Your task to perform on an android device: delete browsing data in the chrome app Image 0: 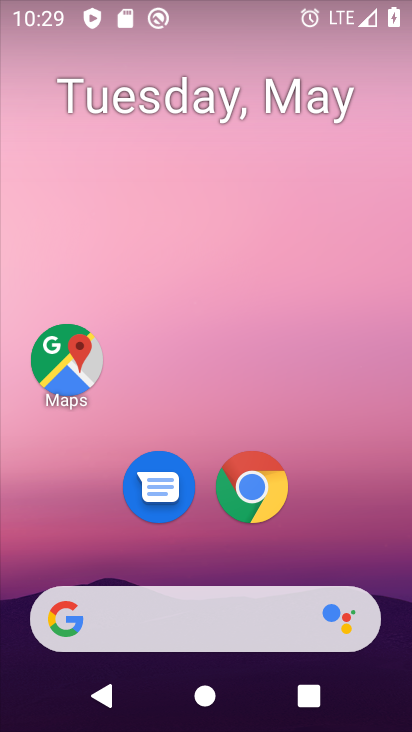
Step 0: drag from (162, 570) to (215, 112)
Your task to perform on an android device: delete browsing data in the chrome app Image 1: 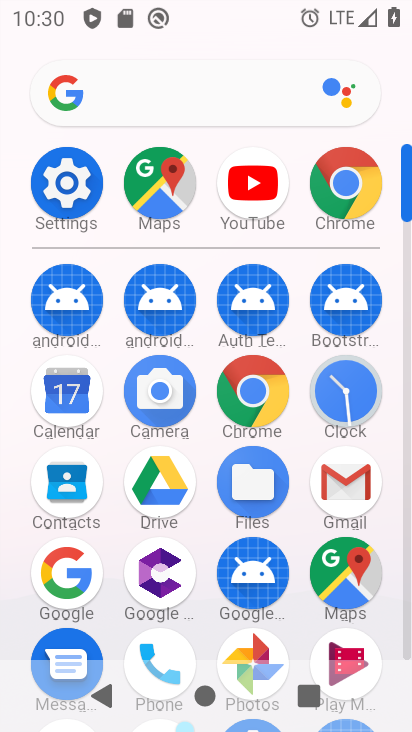
Step 1: click (247, 406)
Your task to perform on an android device: delete browsing data in the chrome app Image 2: 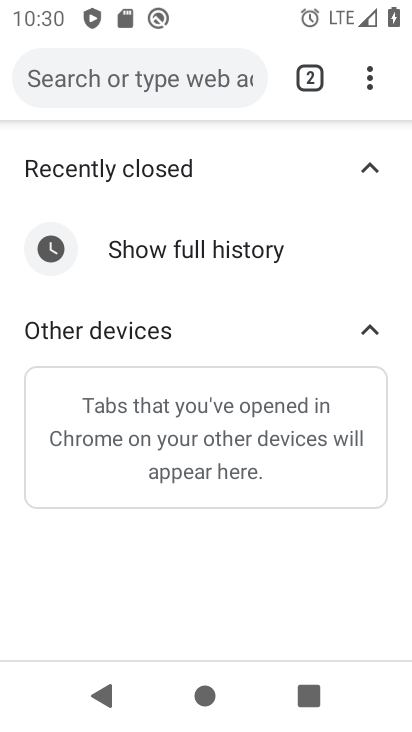
Step 2: click (365, 92)
Your task to perform on an android device: delete browsing data in the chrome app Image 3: 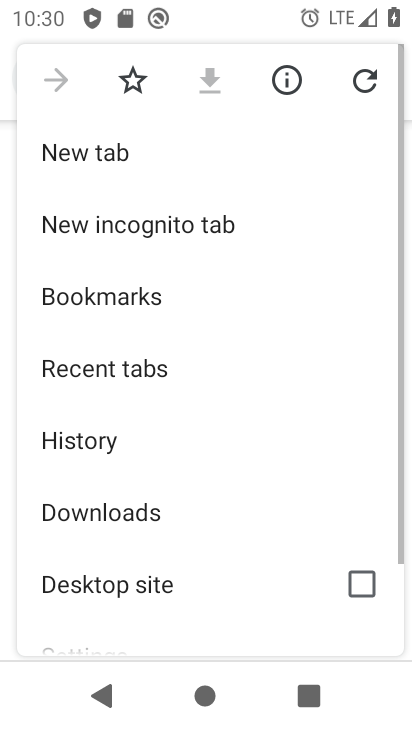
Step 3: drag from (156, 545) to (237, 110)
Your task to perform on an android device: delete browsing data in the chrome app Image 4: 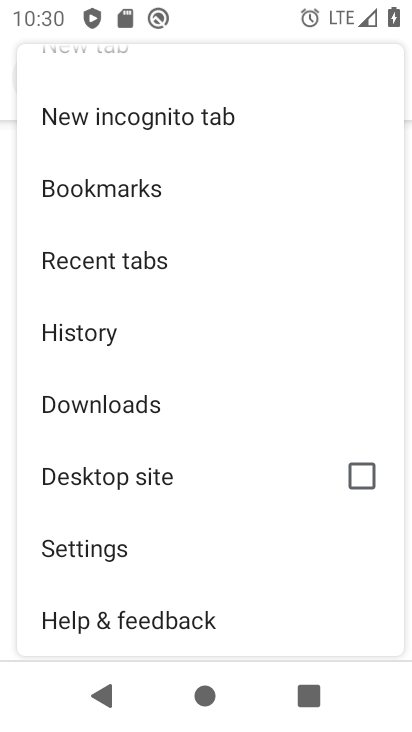
Step 4: click (123, 545)
Your task to perform on an android device: delete browsing data in the chrome app Image 5: 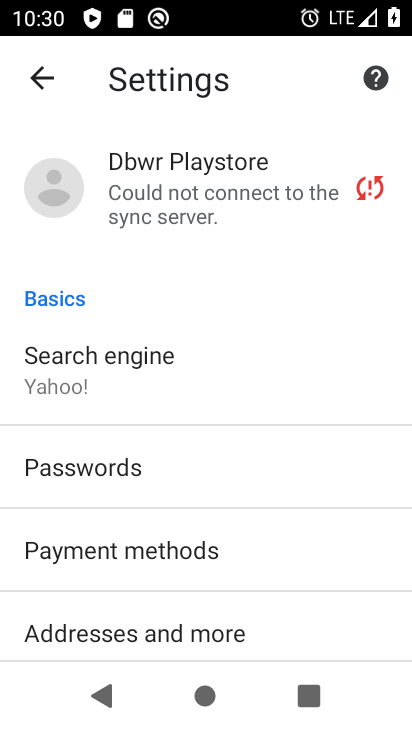
Step 5: drag from (175, 610) to (252, 143)
Your task to perform on an android device: delete browsing data in the chrome app Image 6: 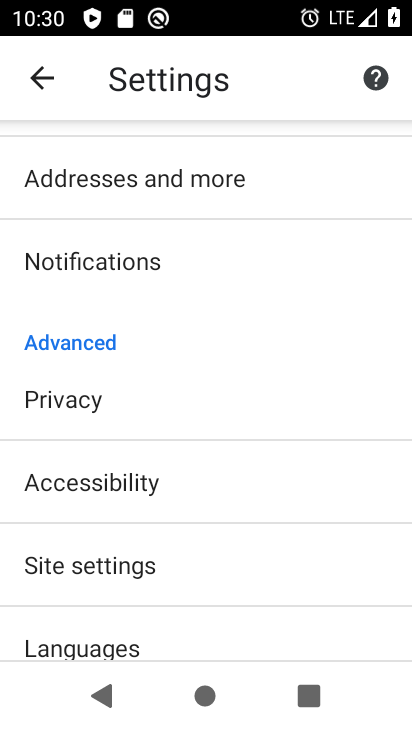
Step 6: drag from (152, 569) to (227, 173)
Your task to perform on an android device: delete browsing data in the chrome app Image 7: 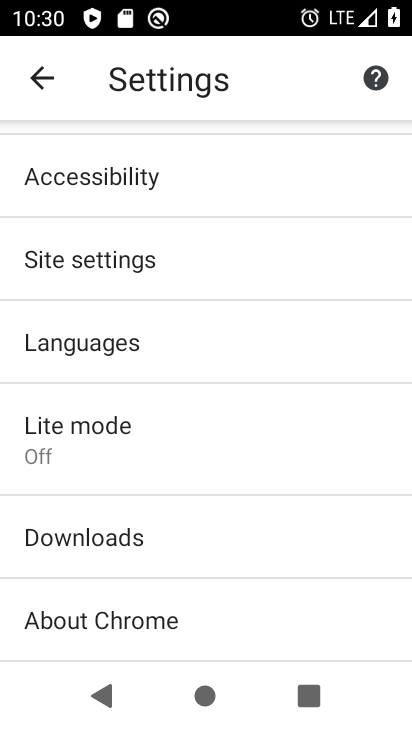
Step 7: click (29, 75)
Your task to perform on an android device: delete browsing data in the chrome app Image 8: 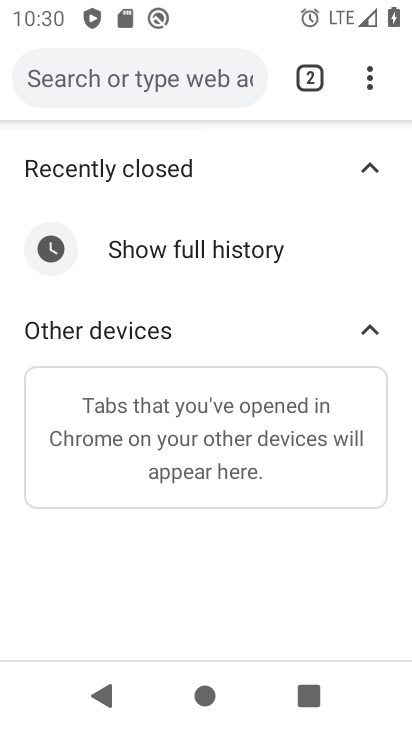
Step 8: click (376, 72)
Your task to perform on an android device: delete browsing data in the chrome app Image 9: 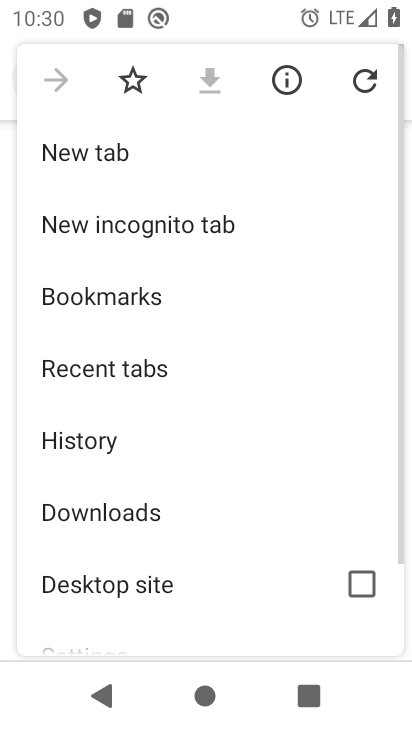
Step 9: click (119, 442)
Your task to perform on an android device: delete browsing data in the chrome app Image 10: 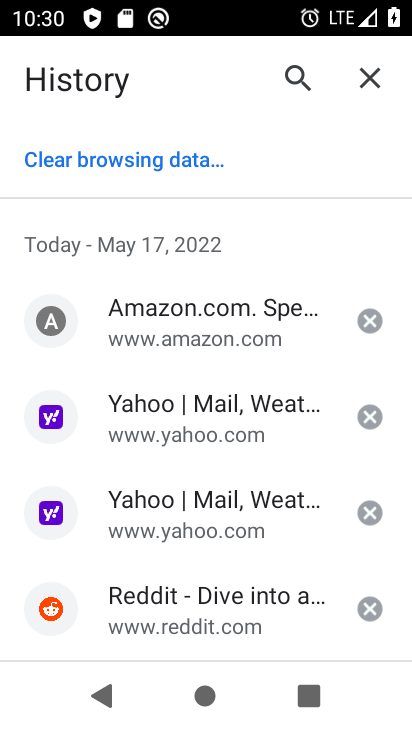
Step 10: click (118, 163)
Your task to perform on an android device: delete browsing data in the chrome app Image 11: 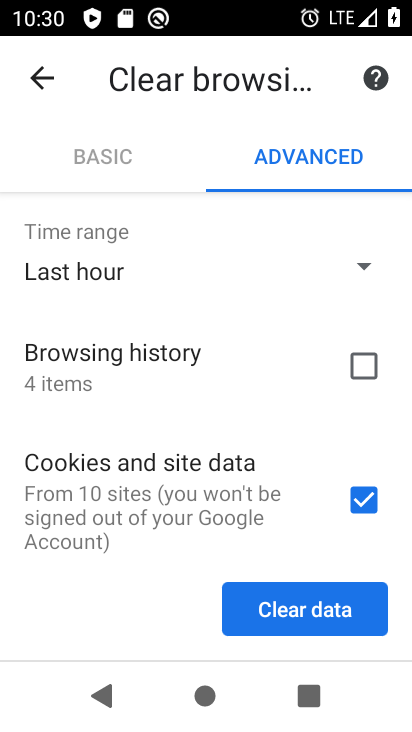
Step 11: click (361, 373)
Your task to perform on an android device: delete browsing data in the chrome app Image 12: 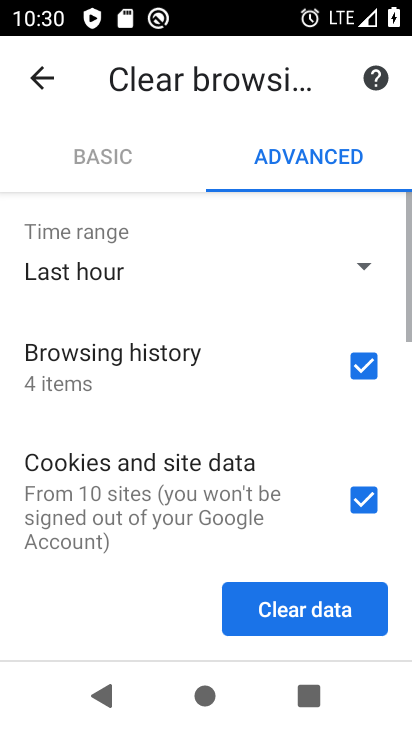
Step 12: click (284, 597)
Your task to perform on an android device: delete browsing data in the chrome app Image 13: 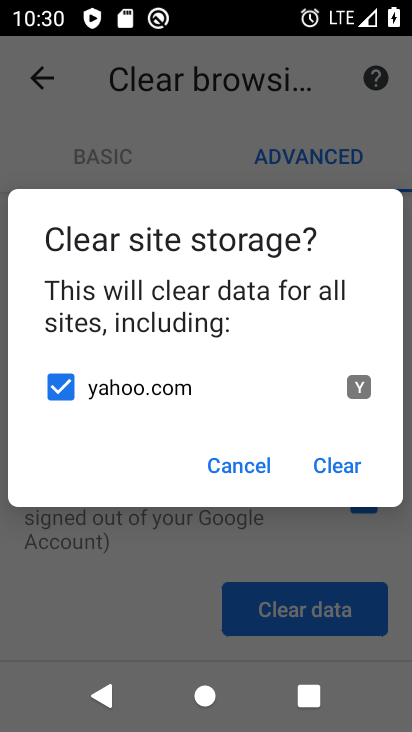
Step 13: click (346, 472)
Your task to perform on an android device: delete browsing data in the chrome app Image 14: 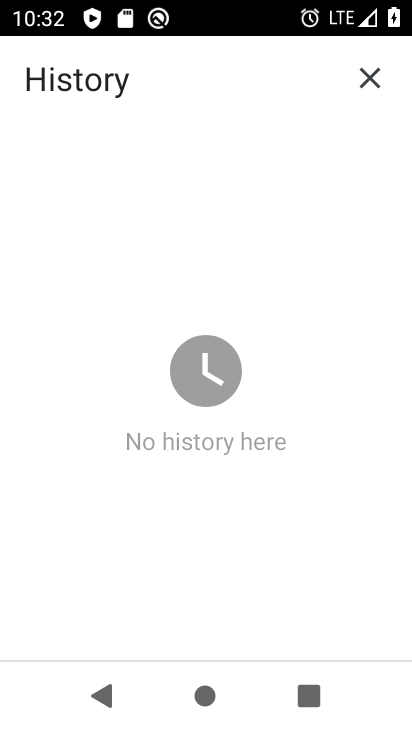
Step 14: task complete